Your task to perform on an android device: Open Maps and search for coffee Image 0: 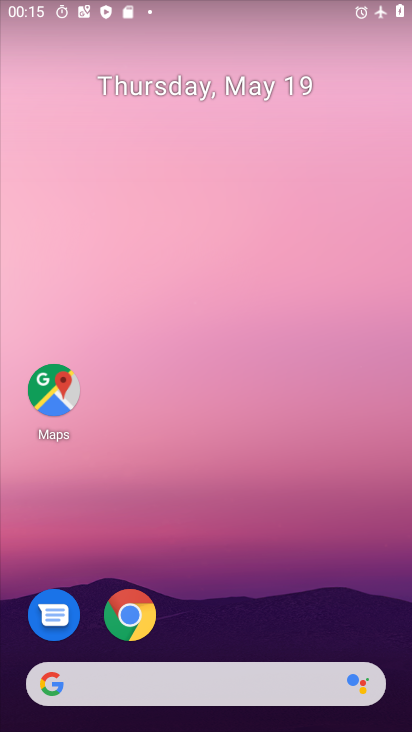
Step 0: press home button
Your task to perform on an android device: Open Maps and search for coffee Image 1: 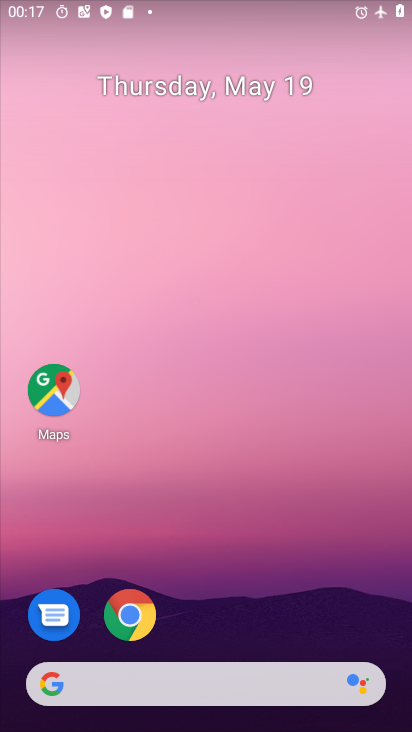
Step 1: click (63, 369)
Your task to perform on an android device: Open Maps and search for coffee Image 2: 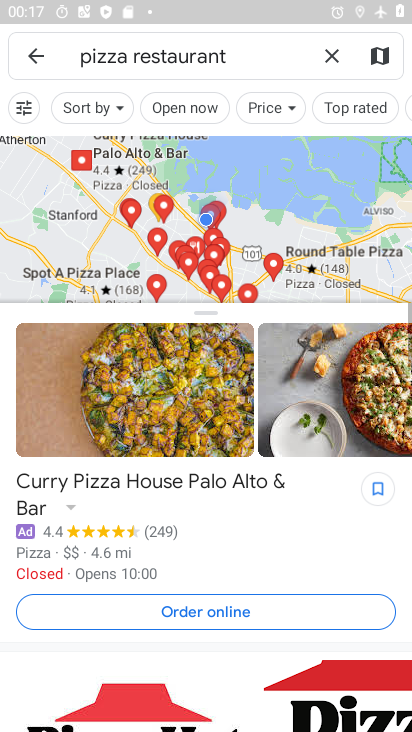
Step 2: click (338, 51)
Your task to perform on an android device: Open Maps and search for coffee Image 3: 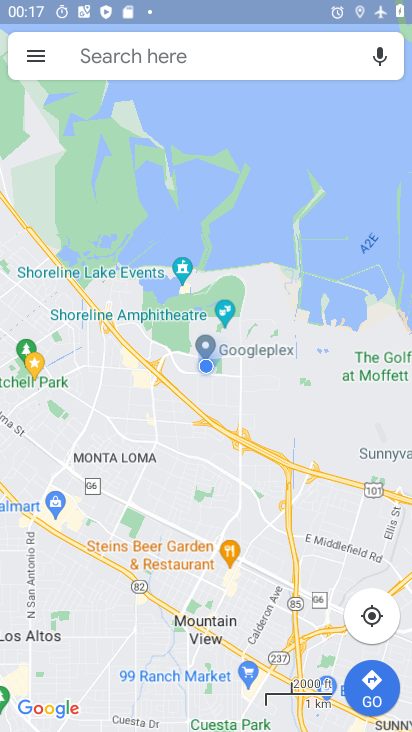
Step 3: click (149, 58)
Your task to perform on an android device: Open Maps and search for coffee Image 4: 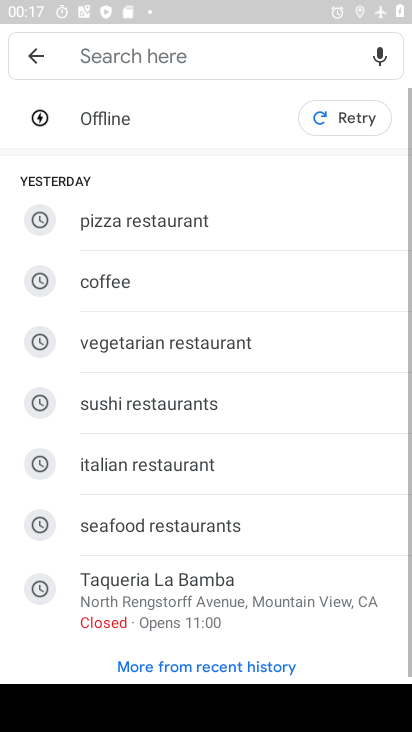
Step 4: click (126, 289)
Your task to perform on an android device: Open Maps and search for coffee Image 5: 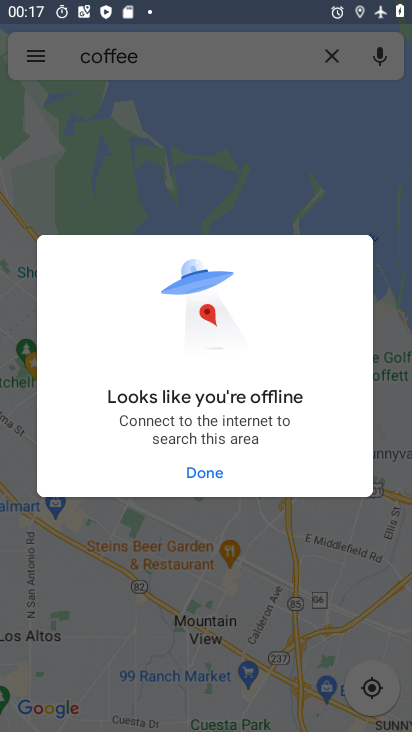
Step 5: task complete